Your task to perform on an android device: Go to CNN.com Image 0: 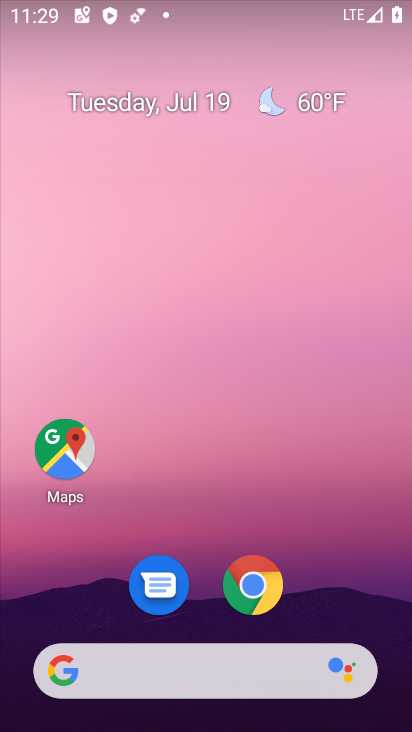
Step 0: click (234, 664)
Your task to perform on an android device: Go to CNN.com Image 1: 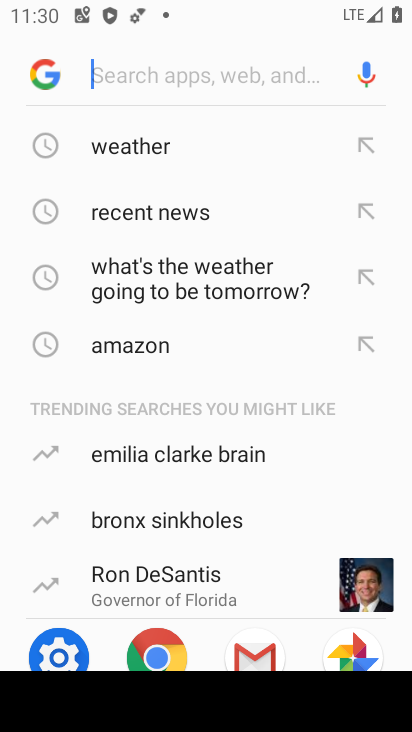
Step 1: type "cnn.com"
Your task to perform on an android device: Go to CNN.com Image 2: 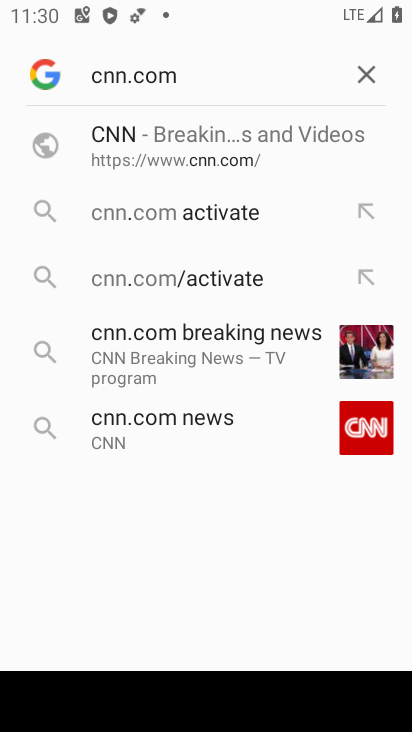
Step 2: click (236, 145)
Your task to perform on an android device: Go to CNN.com Image 3: 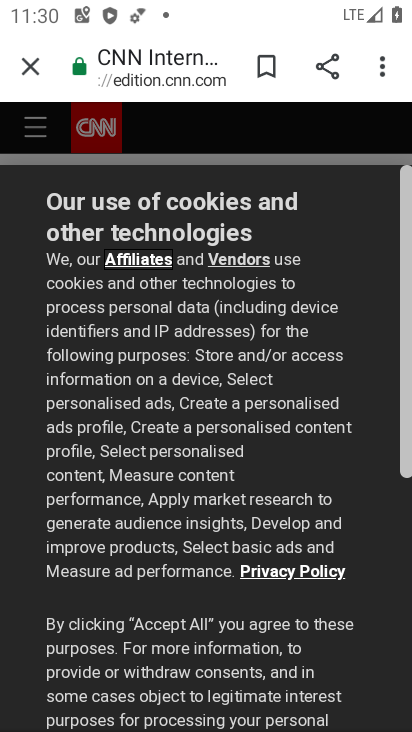
Step 3: task complete